Your task to perform on an android device: set the timer Image 0: 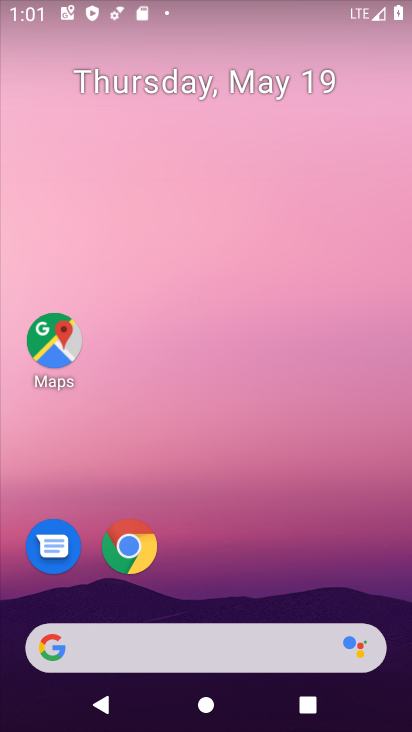
Step 0: drag from (211, 617) to (383, 34)
Your task to perform on an android device: set the timer Image 1: 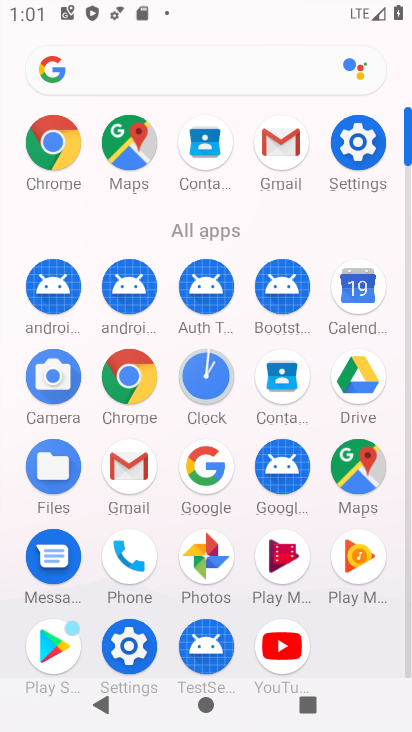
Step 1: click (208, 375)
Your task to perform on an android device: set the timer Image 2: 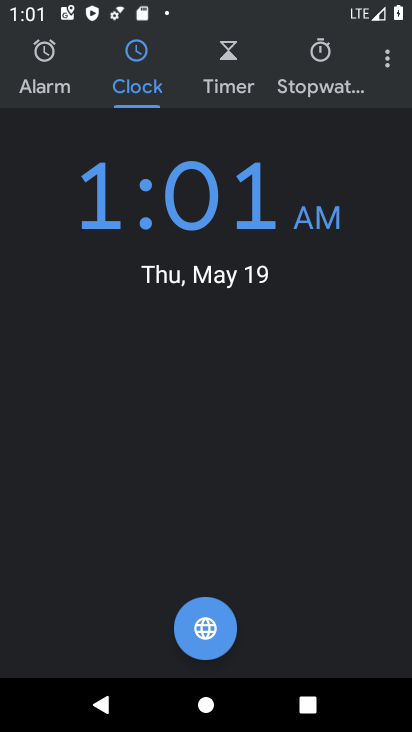
Step 2: click (232, 87)
Your task to perform on an android device: set the timer Image 3: 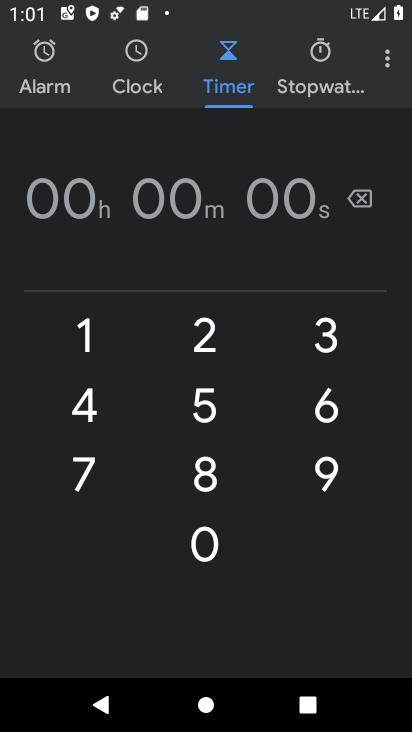
Step 3: click (203, 483)
Your task to perform on an android device: set the timer Image 4: 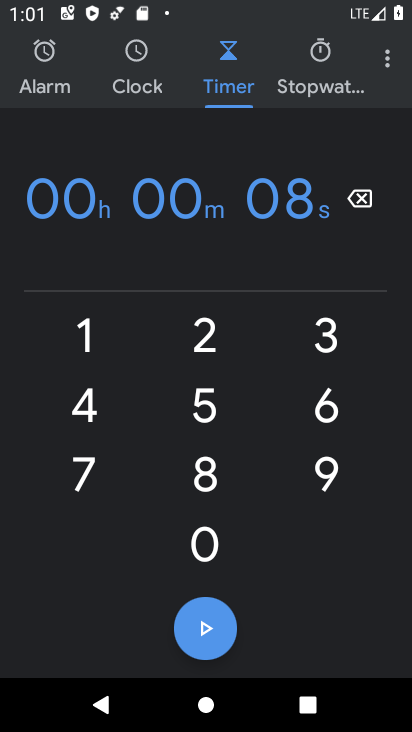
Step 4: click (206, 630)
Your task to perform on an android device: set the timer Image 5: 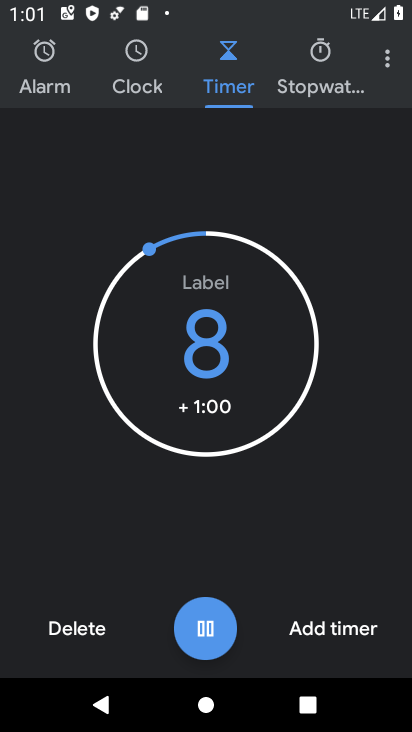
Step 5: task complete